Your task to perform on an android device: turn off sleep mode Image 0: 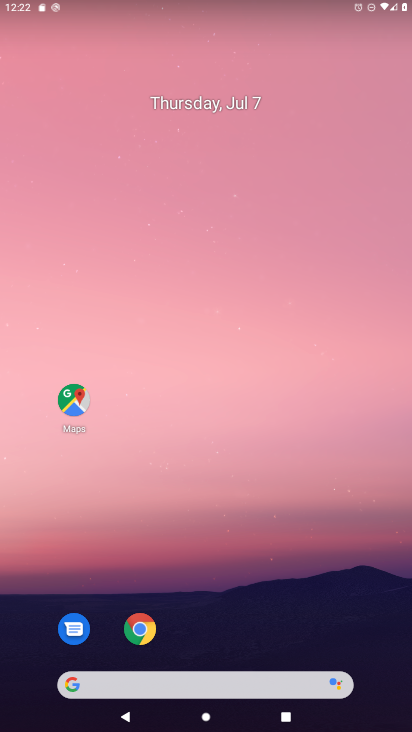
Step 0: drag from (212, 622) to (206, 131)
Your task to perform on an android device: turn off sleep mode Image 1: 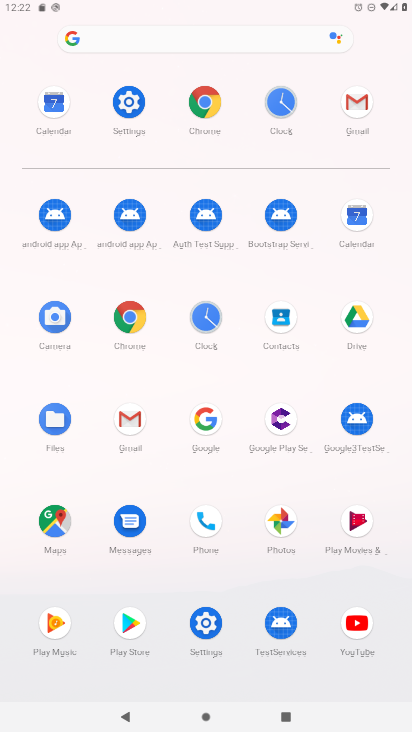
Step 1: click (113, 128)
Your task to perform on an android device: turn off sleep mode Image 2: 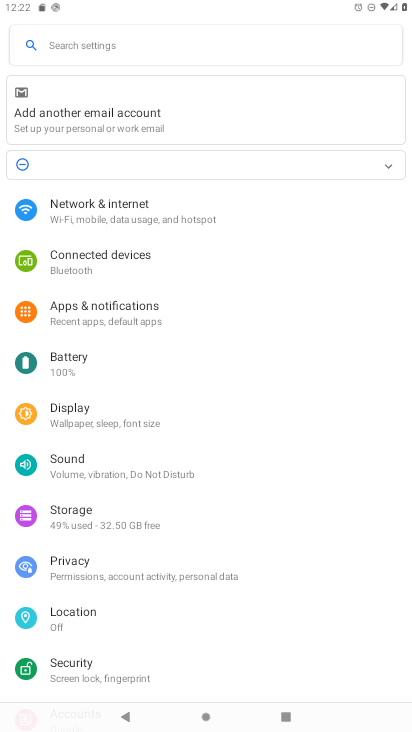
Step 2: click (108, 420)
Your task to perform on an android device: turn off sleep mode Image 3: 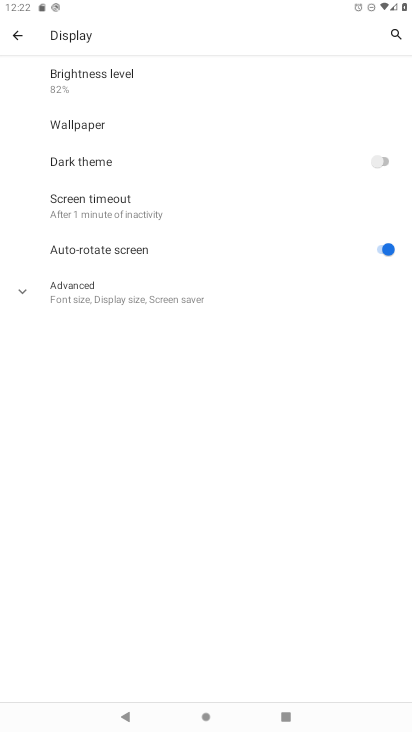
Step 3: click (116, 208)
Your task to perform on an android device: turn off sleep mode Image 4: 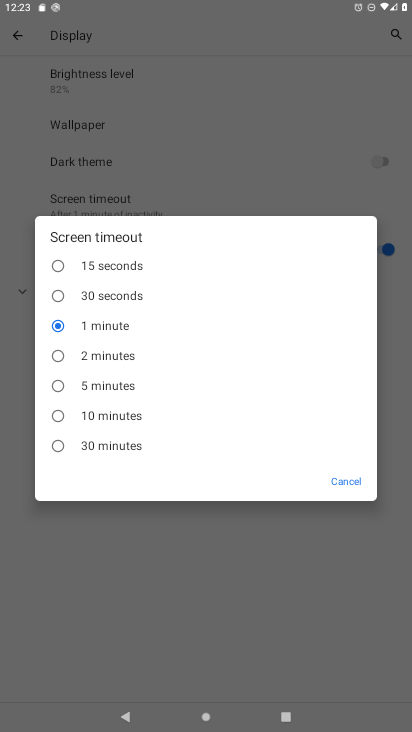
Step 4: click (95, 386)
Your task to perform on an android device: turn off sleep mode Image 5: 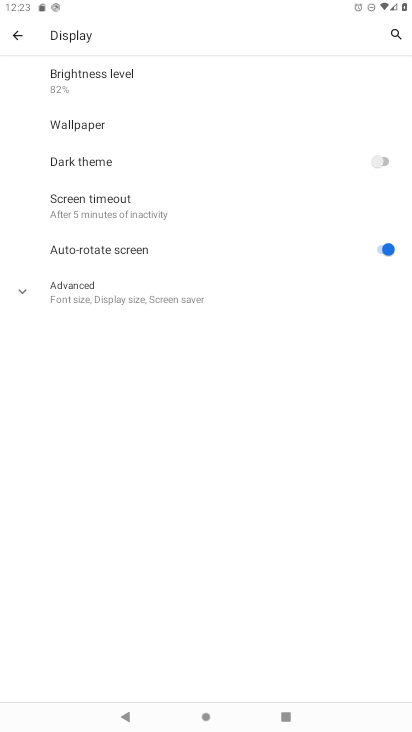
Step 5: task complete